Your task to perform on an android device: What's on the menu at Starbucks? Image 0: 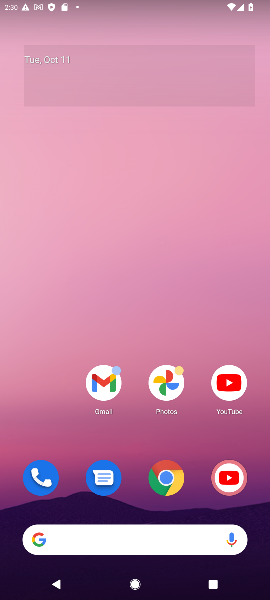
Step 0: click (176, 478)
Your task to perform on an android device: What's on the menu at Starbucks? Image 1: 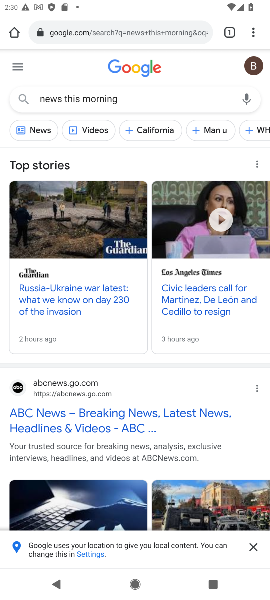
Step 1: click (166, 106)
Your task to perform on an android device: What's on the menu at Starbucks? Image 2: 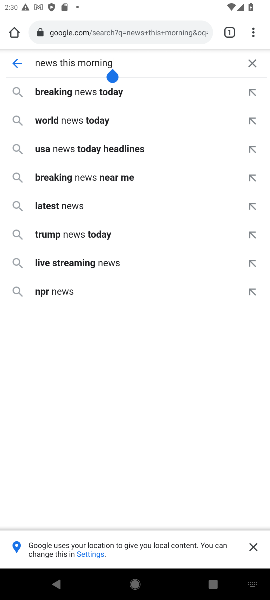
Step 2: click (251, 70)
Your task to perform on an android device: What's on the menu at Starbucks? Image 3: 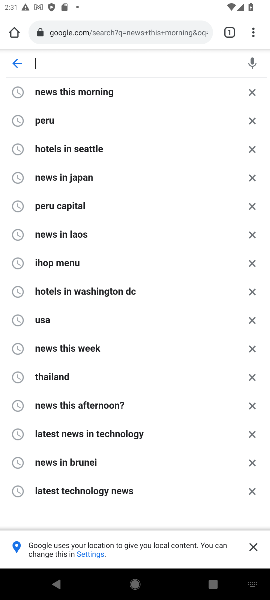
Step 3: type "menu at starbucks"
Your task to perform on an android device: What's on the menu at Starbucks? Image 4: 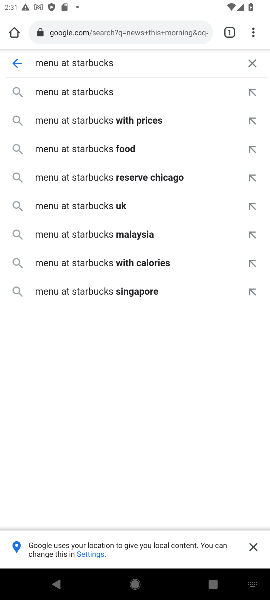
Step 4: press enter
Your task to perform on an android device: What's on the menu at Starbucks? Image 5: 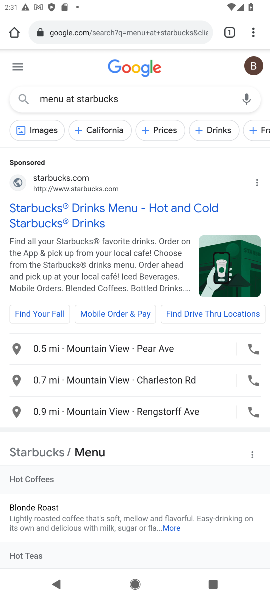
Step 5: click (94, 214)
Your task to perform on an android device: What's on the menu at Starbucks? Image 6: 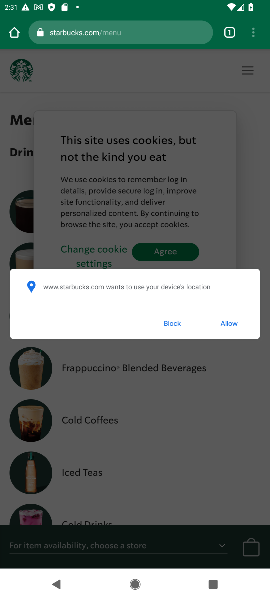
Step 6: task complete